Your task to perform on an android device: turn on the 24-hour format for clock Image 0: 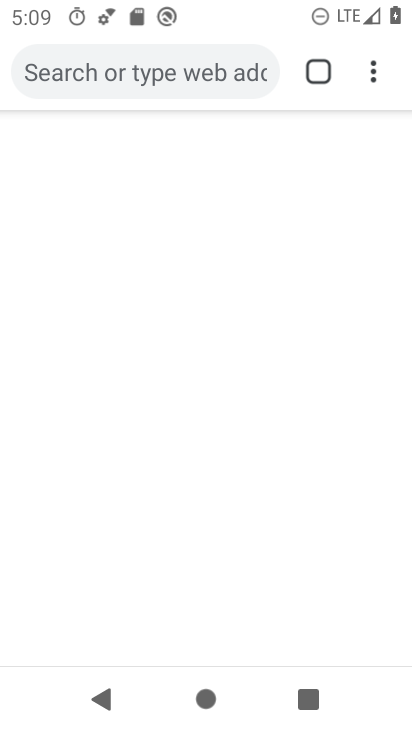
Step 0: click (338, 54)
Your task to perform on an android device: turn on the 24-hour format for clock Image 1: 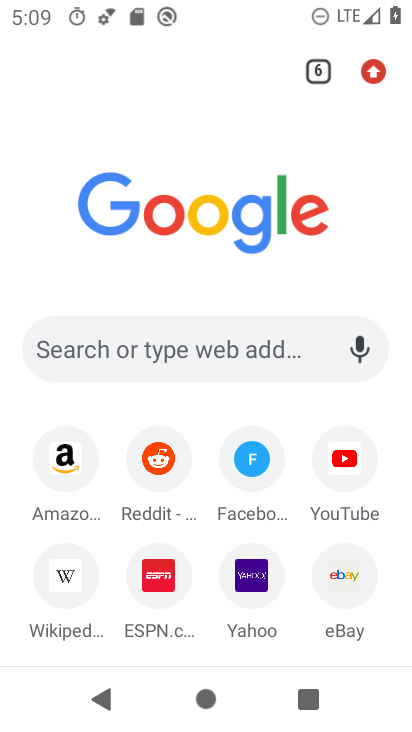
Step 1: drag from (376, 73) to (194, 505)
Your task to perform on an android device: turn on the 24-hour format for clock Image 2: 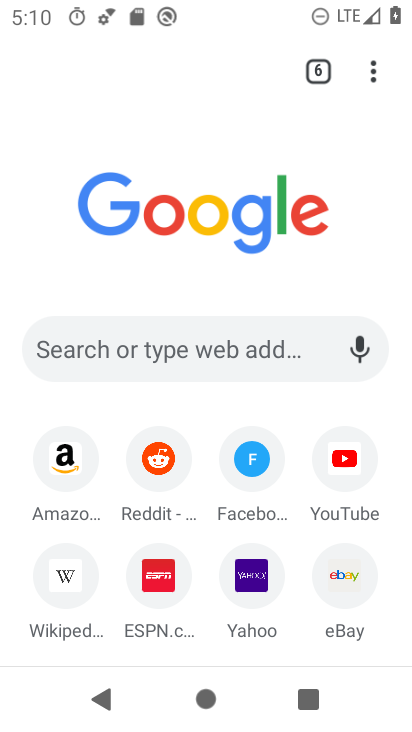
Step 2: press back button
Your task to perform on an android device: turn on the 24-hour format for clock Image 3: 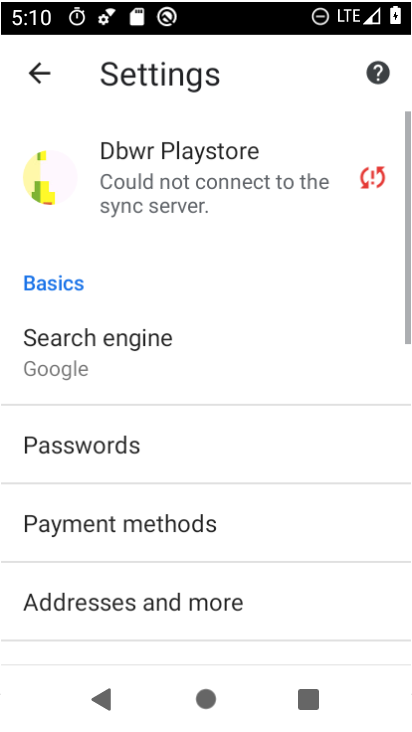
Step 3: press back button
Your task to perform on an android device: turn on the 24-hour format for clock Image 4: 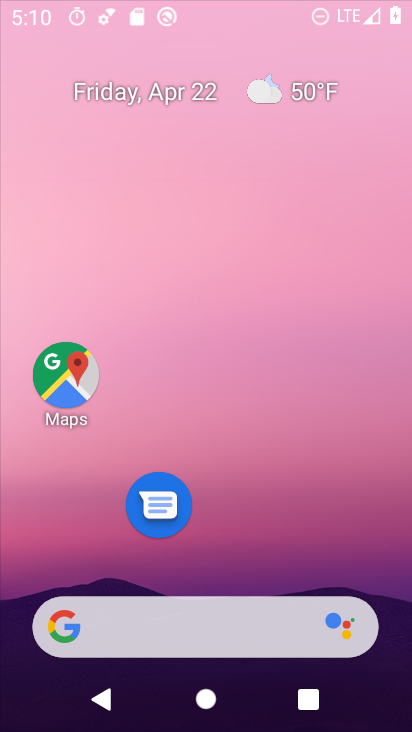
Step 4: press back button
Your task to perform on an android device: turn on the 24-hour format for clock Image 5: 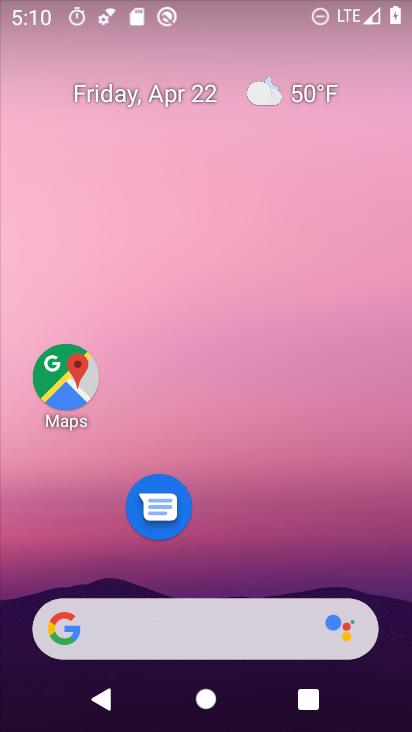
Step 5: drag from (283, 510) to (331, 71)
Your task to perform on an android device: turn on the 24-hour format for clock Image 6: 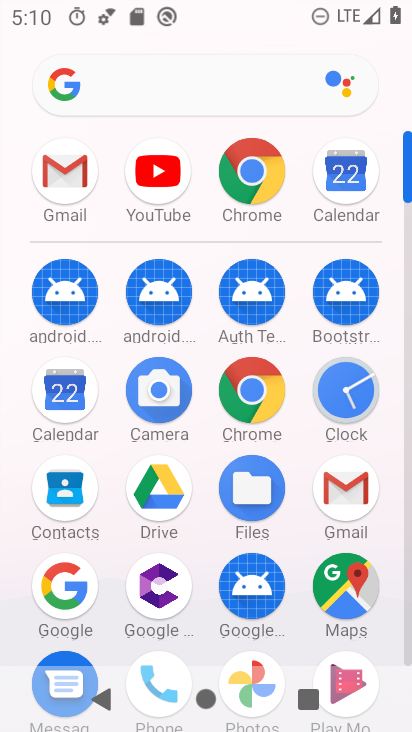
Step 6: click (360, 380)
Your task to perform on an android device: turn on the 24-hour format for clock Image 7: 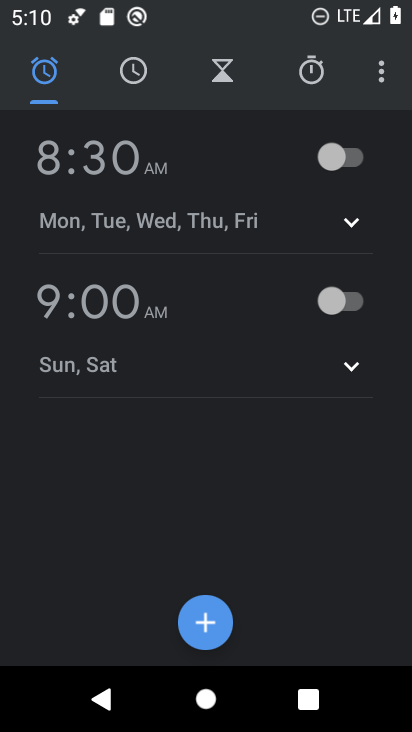
Step 7: click (378, 67)
Your task to perform on an android device: turn on the 24-hour format for clock Image 8: 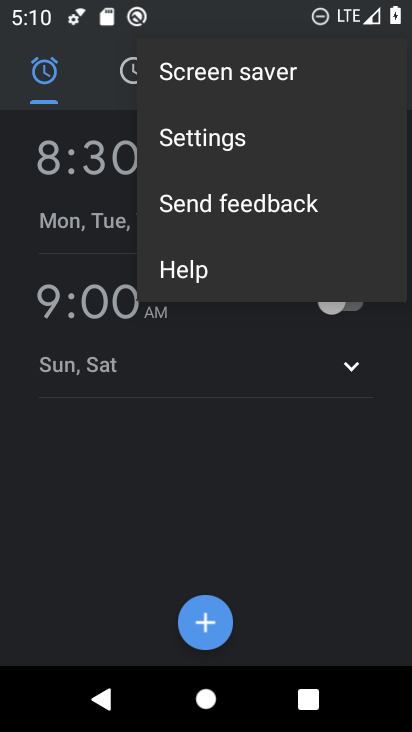
Step 8: click (219, 133)
Your task to perform on an android device: turn on the 24-hour format for clock Image 9: 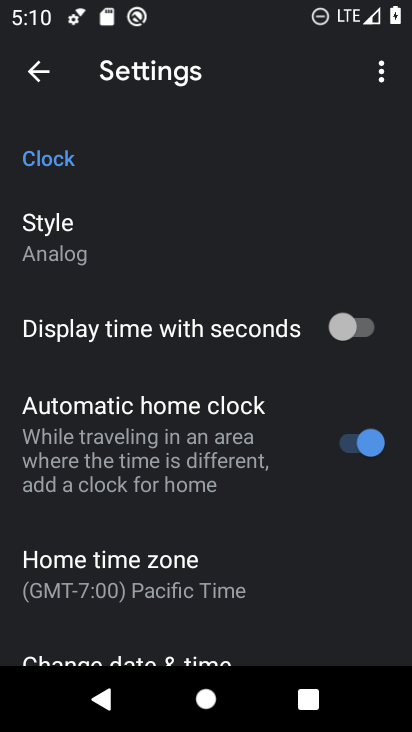
Step 9: drag from (219, 552) to (240, 157)
Your task to perform on an android device: turn on the 24-hour format for clock Image 10: 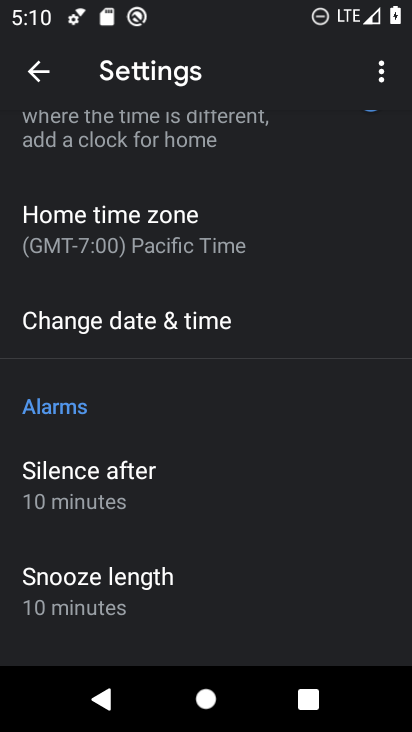
Step 10: click (163, 311)
Your task to perform on an android device: turn on the 24-hour format for clock Image 11: 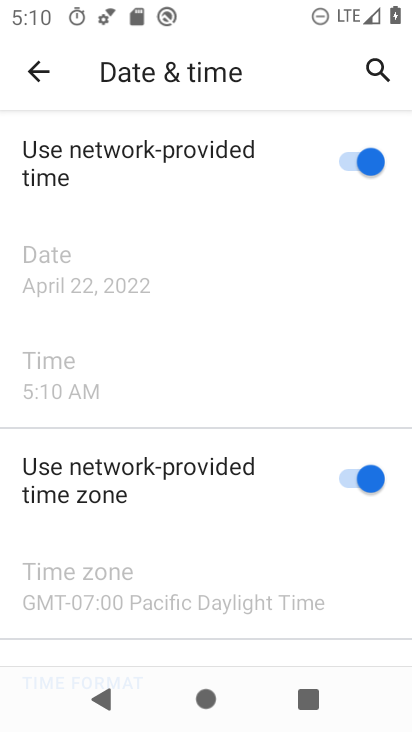
Step 11: drag from (170, 549) to (277, 52)
Your task to perform on an android device: turn on the 24-hour format for clock Image 12: 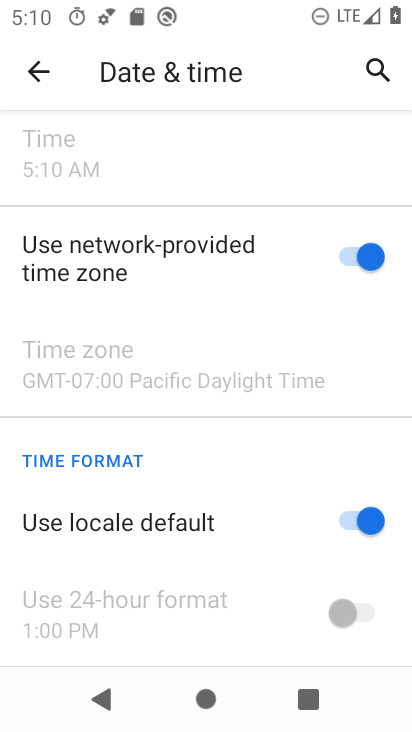
Step 12: click (379, 514)
Your task to perform on an android device: turn on the 24-hour format for clock Image 13: 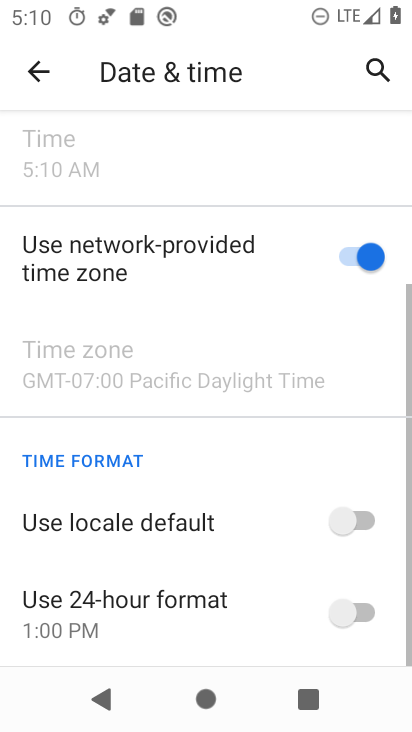
Step 13: click (363, 602)
Your task to perform on an android device: turn on the 24-hour format for clock Image 14: 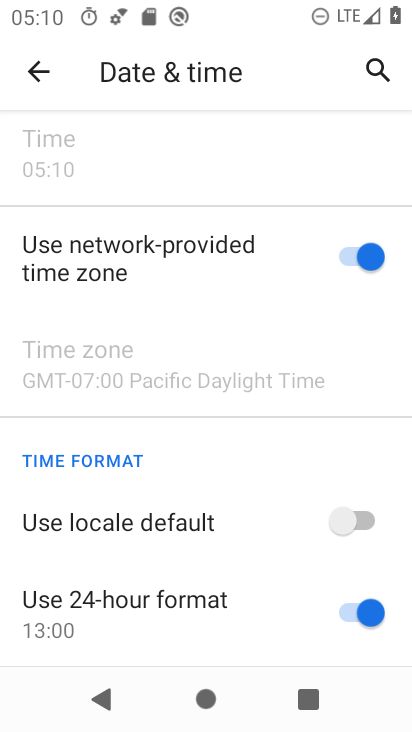
Step 14: task complete